Your task to perform on an android device: set the timer Image 0: 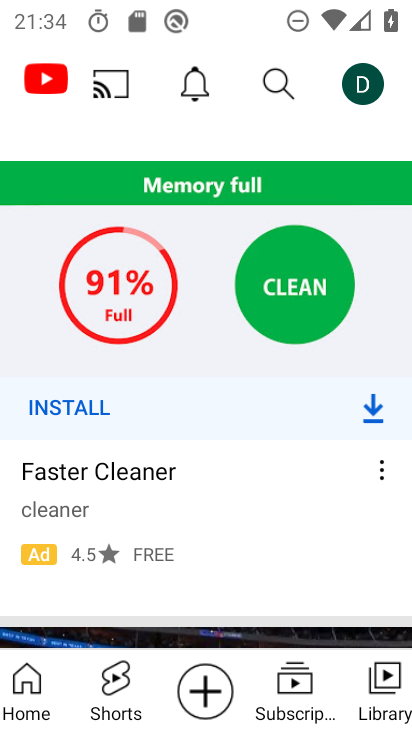
Step 0: press home button
Your task to perform on an android device: set the timer Image 1: 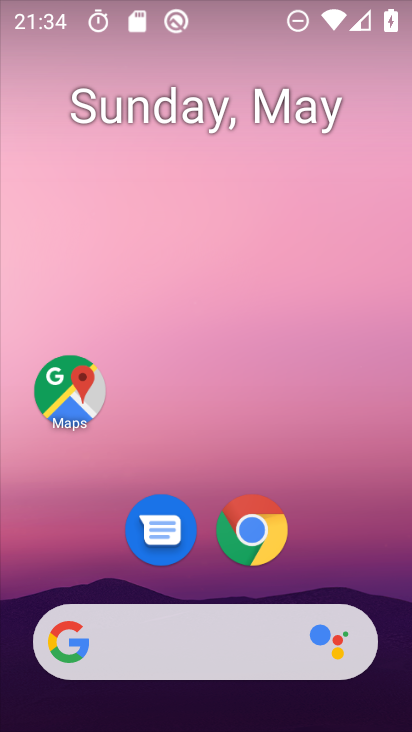
Step 1: drag from (286, 640) to (198, 55)
Your task to perform on an android device: set the timer Image 2: 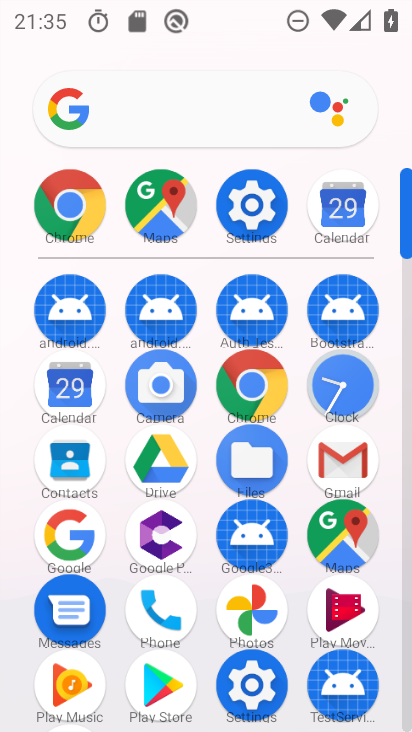
Step 2: click (346, 381)
Your task to perform on an android device: set the timer Image 3: 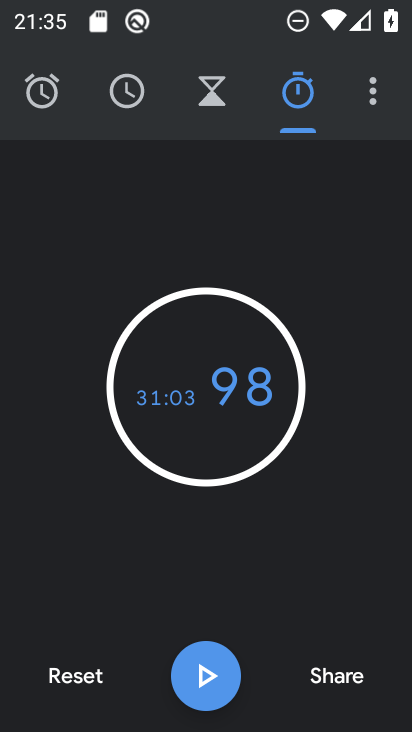
Step 3: click (218, 667)
Your task to perform on an android device: set the timer Image 4: 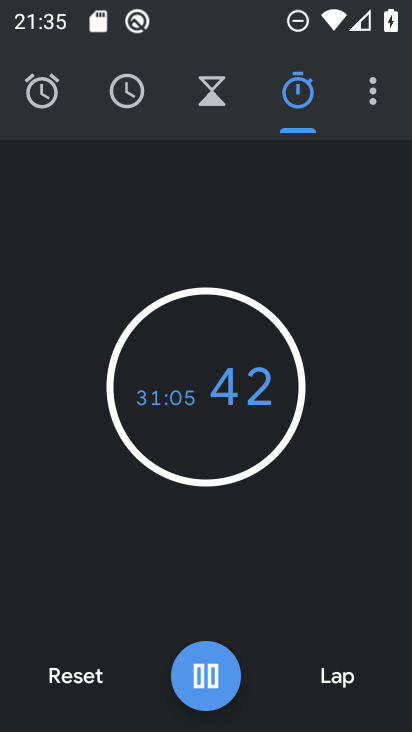
Step 4: click (215, 668)
Your task to perform on an android device: set the timer Image 5: 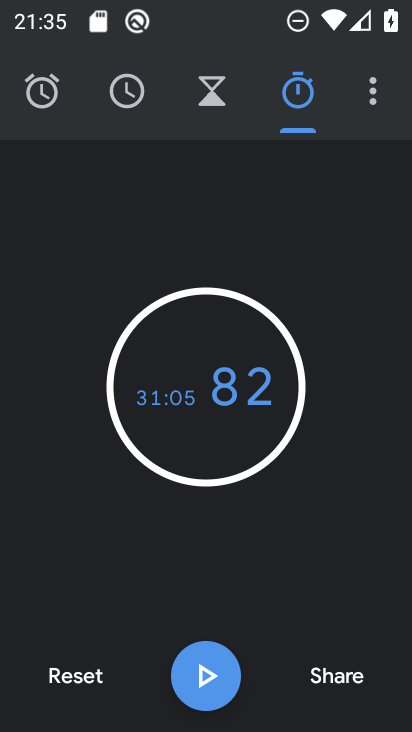
Step 5: task complete